Your task to perform on an android device: change keyboard looks Image 0: 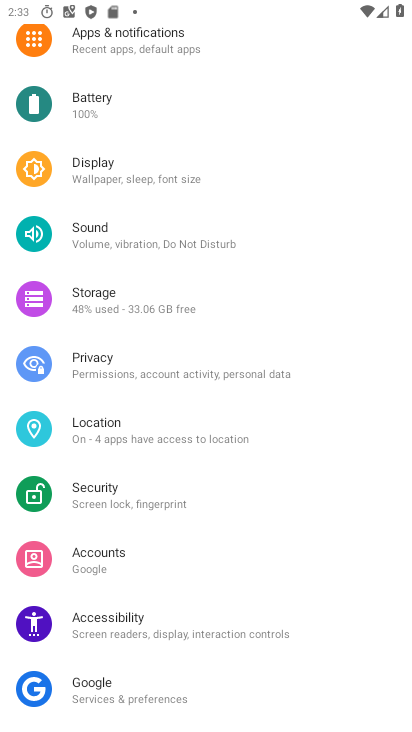
Step 0: click (85, 690)
Your task to perform on an android device: change keyboard looks Image 1: 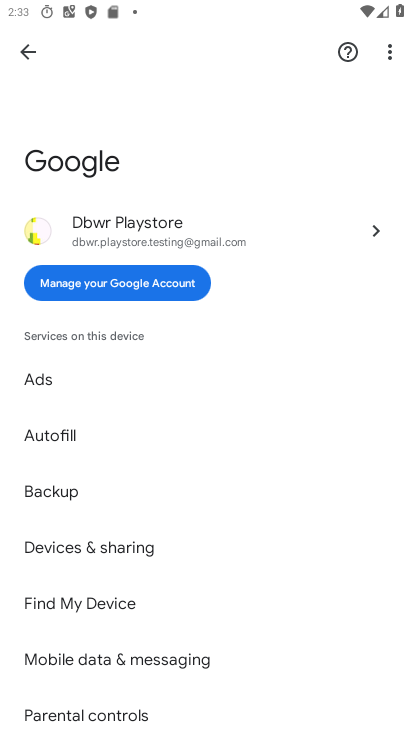
Step 1: press back button
Your task to perform on an android device: change keyboard looks Image 2: 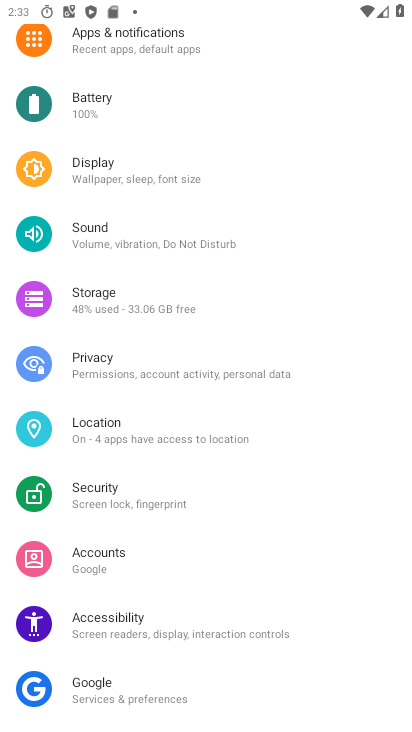
Step 2: drag from (245, 680) to (286, 401)
Your task to perform on an android device: change keyboard looks Image 3: 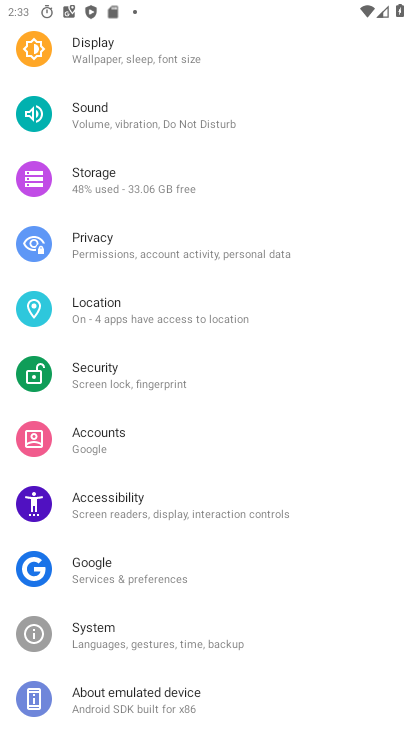
Step 3: click (121, 636)
Your task to perform on an android device: change keyboard looks Image 4: 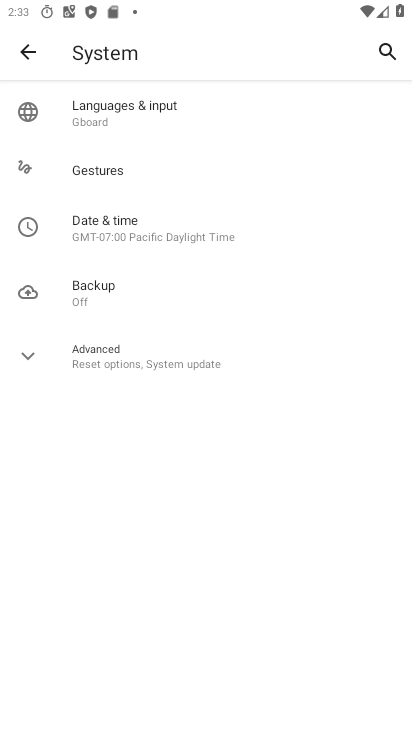
Step 4: click (84, 118)
Your task to perform on an android device: change keyboard looks Image 5: 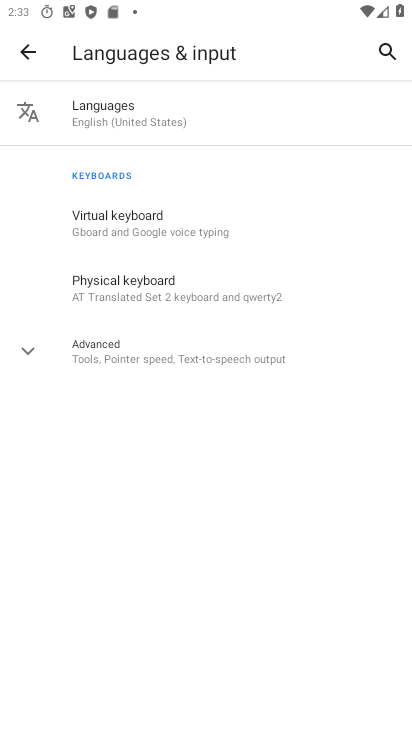
Step 5: click (98, 220)
Your task to perform on an android device: change keyboard looks Image 6: 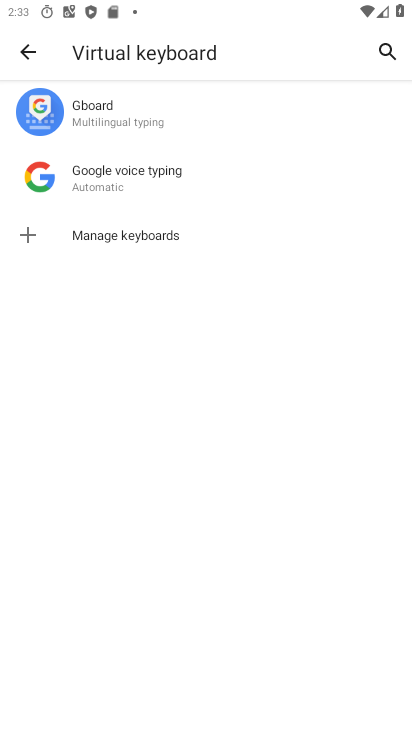
Step 6: click (91, 120)
Your task to perform on an android device: change keyboard looks Image 7: 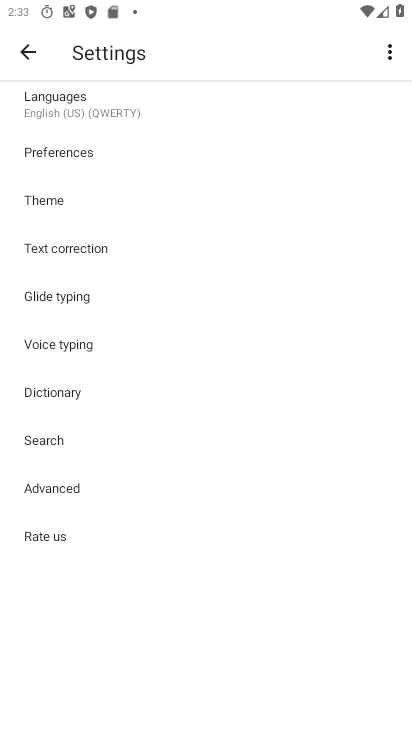
Step 7: click (48, 193)
Your task to perform on an android device: change keyboard looks Image 8: 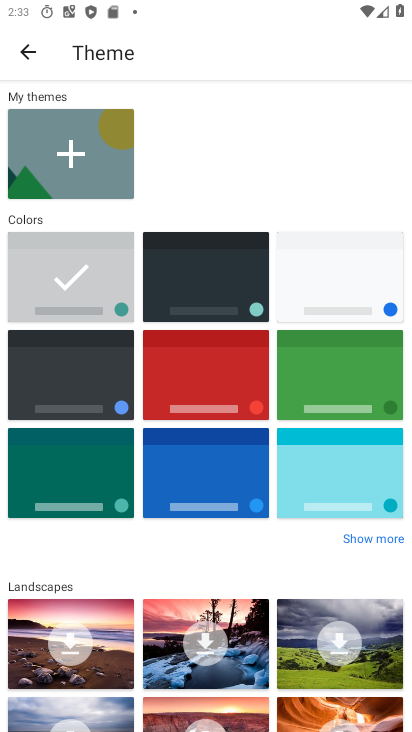
Step 8: click (312, 385)
Your task to perform on an android device: change keyboard looks Image 9: 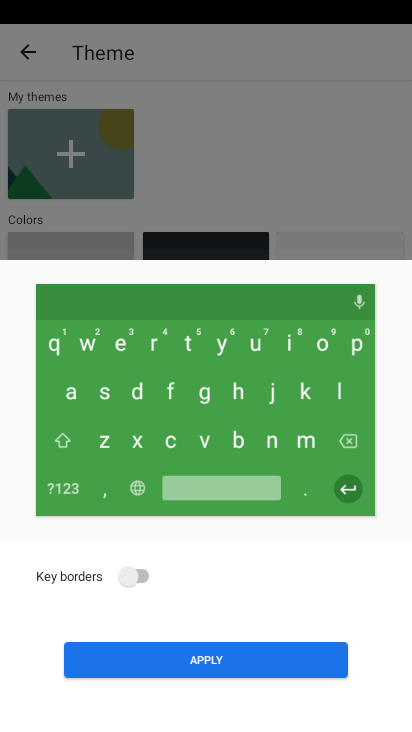
Step 9: click (144, 570)
Your task to perform on an android device: change keyboard looks Image 10: 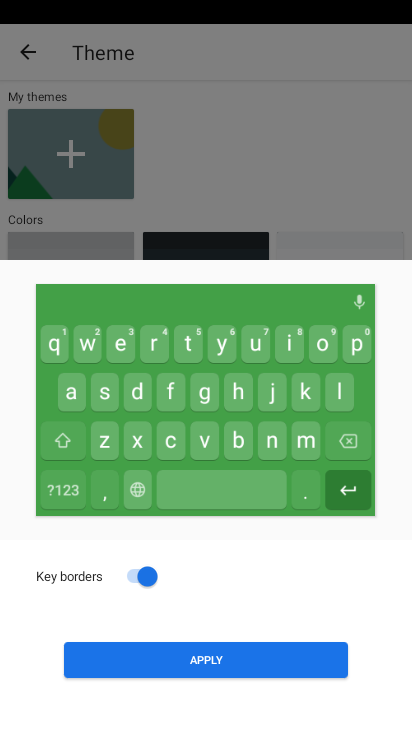
Step 10: click (178, 666)
Your task to perform on an android device: change keyboard looks Image 11: 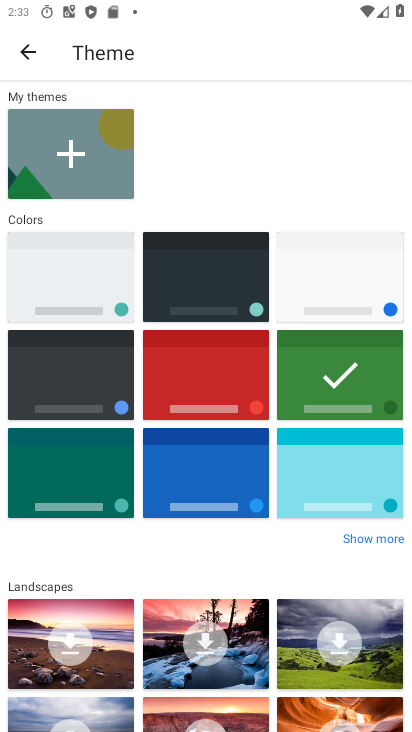
Step 11: task complete